Your task to perform on an android device: open sync settings in chrome Image 0: 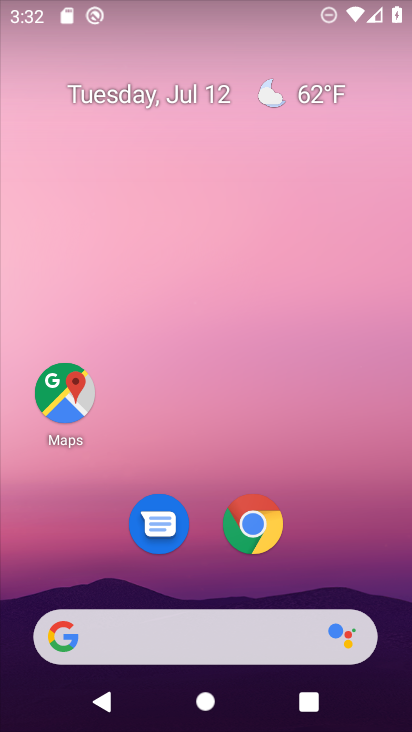
Step 0: click (258, 527)
Your task to perform on an android device: open sync settings in chrome Image 1: 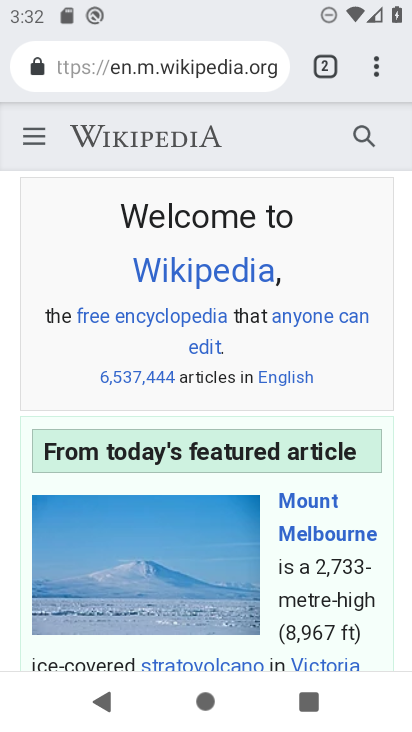
Step 1: click (381, 63)
Your task to perform on an android device: open sync settings in chrome Image 2: 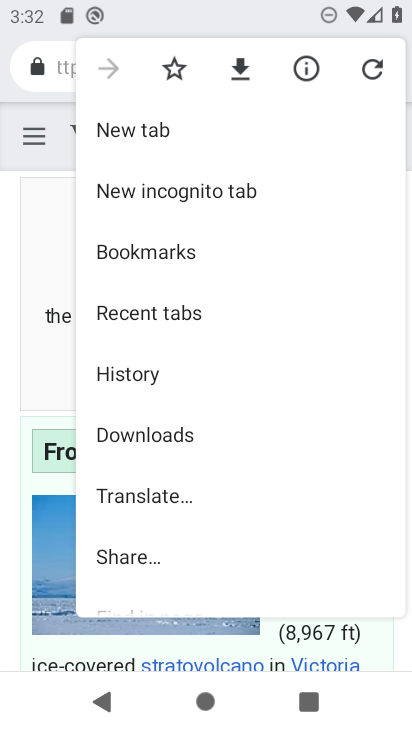
Step 2: drag from (238, 458) to (255, 223)
Your task to perform on an android device: open sync settings in chrome Image 3: 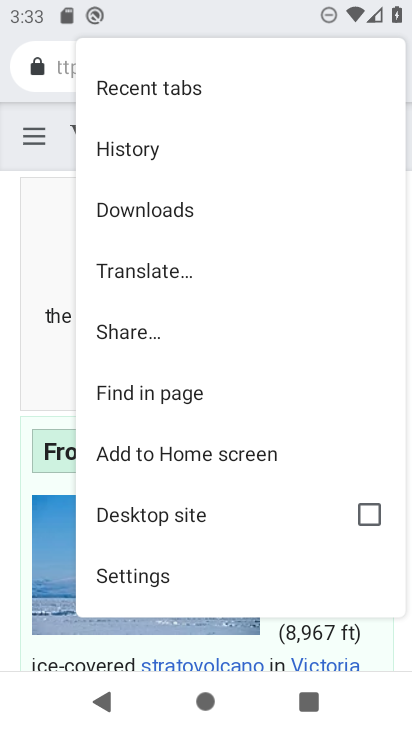
Step 3: click (151, 575)
Your task to perform on an android device: open sync settings in chrome Image 4: 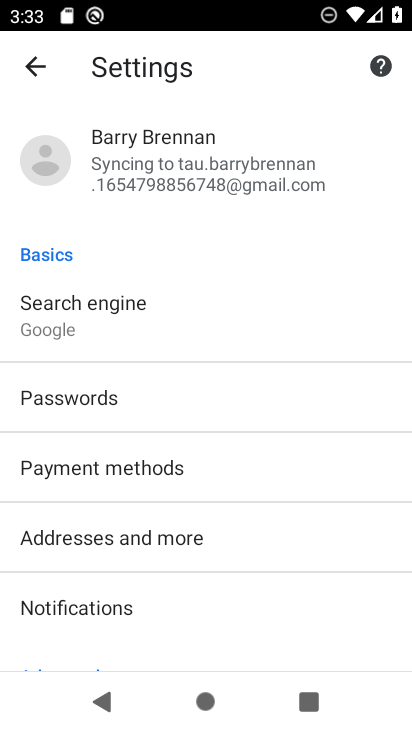
Step 4: drag from (151, 575) to (192, 261)
Your task to perform on an android device: open sync settings in chrome Image 5: 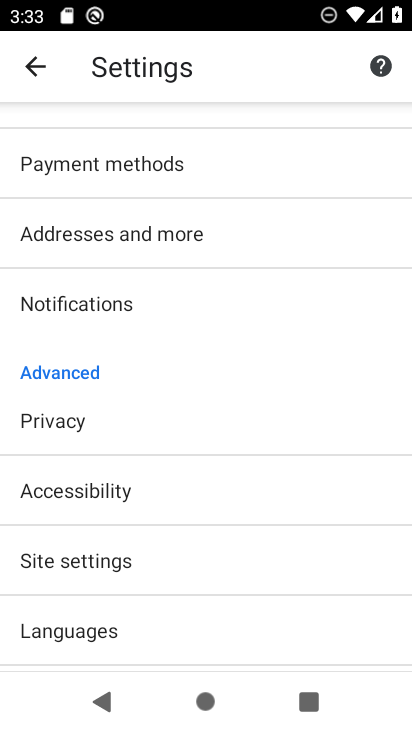
Step 5: drag from (210, 152) to (242, 595)
Your task to perform on an android device: open sync settings in chrome Image 6: 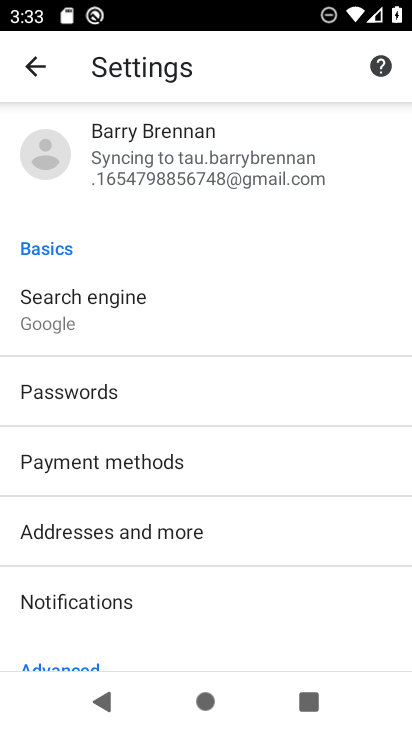
Step 6: click (198, 159)
Your task to perform on an android device: open sync settings in chrome Image 7: 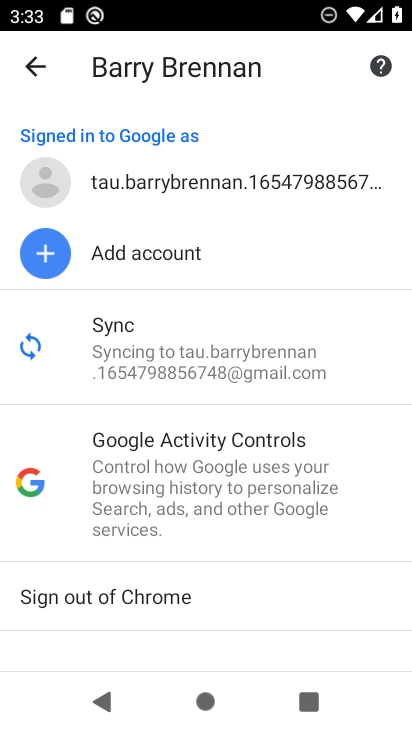
Step 7: click (177, 349)
Your task to perform on an android device: open sync settings in chrome Image 8: 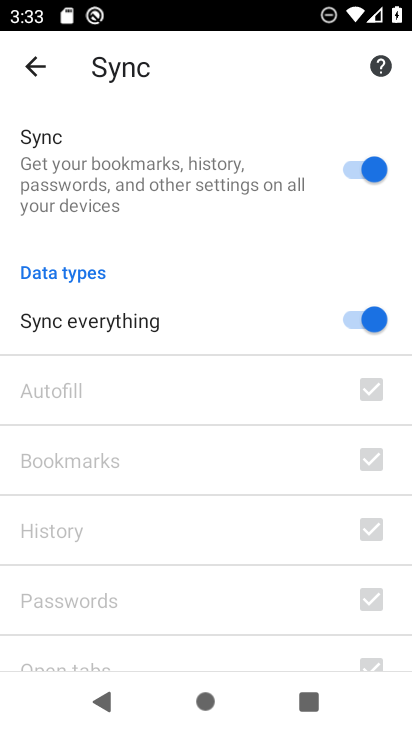
Step 8: task complete